Your task to perform on an android device: Open internet settings Image 0: 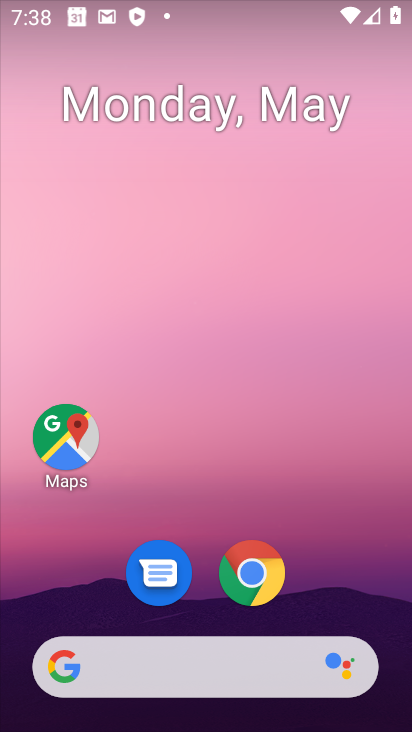
Step 0: drag from (210, 662) to (299, 95)
Your task to perform on an android device: Open internet settings Image 1: 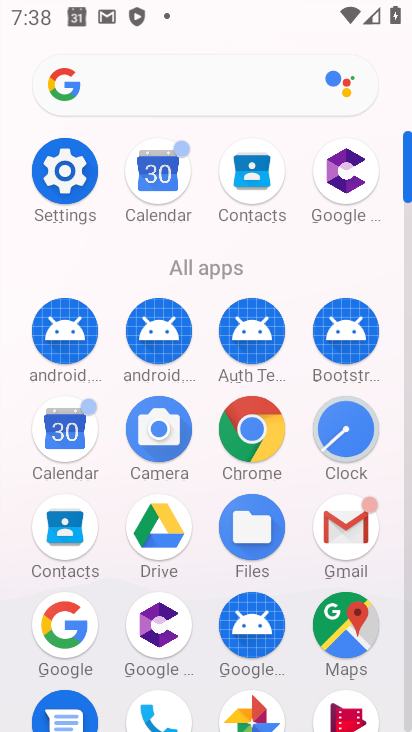
Step 1: click (79, 200)
Your task to perform on an android device: Open internet settings Image 2: 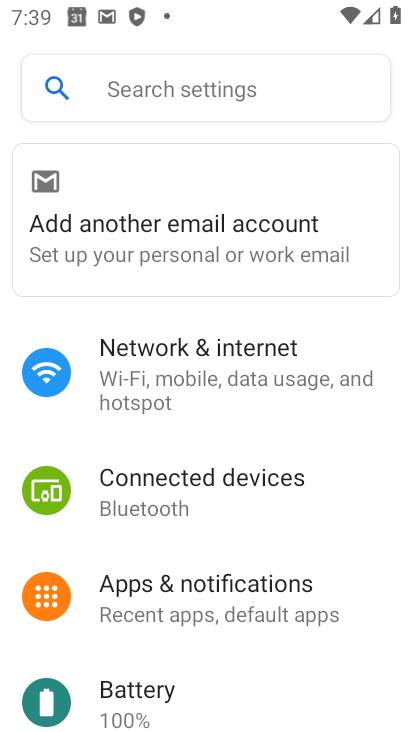
Step 2: click (195, 390)
Your task to perform on an android device: Open internet settings Image 3: 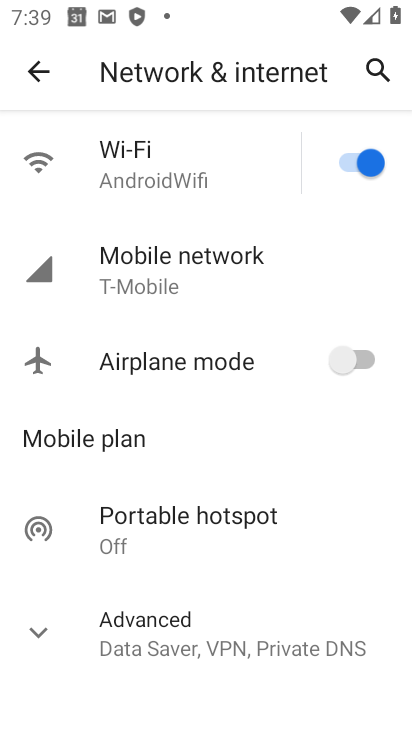
Step 3: click (291, 262)
Your task to perform on an android device: Open internet settings Image 4: 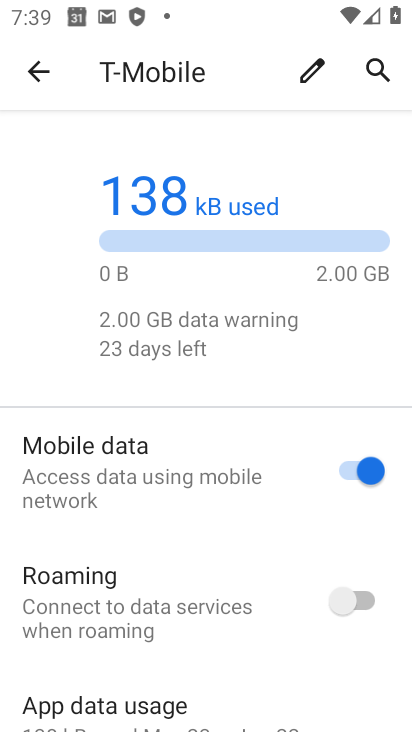
Step 4: task complete